Your task to perform on an android device: Open CNN.com Image 0: 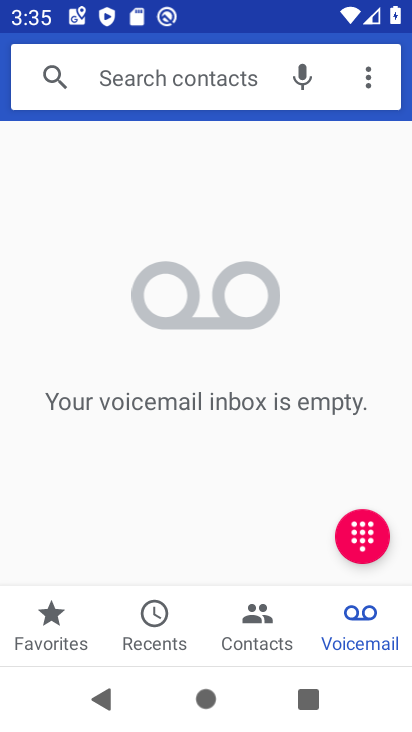
Step 0: press home button
Your task to perform on an android device: Open CNN.com Image 1: 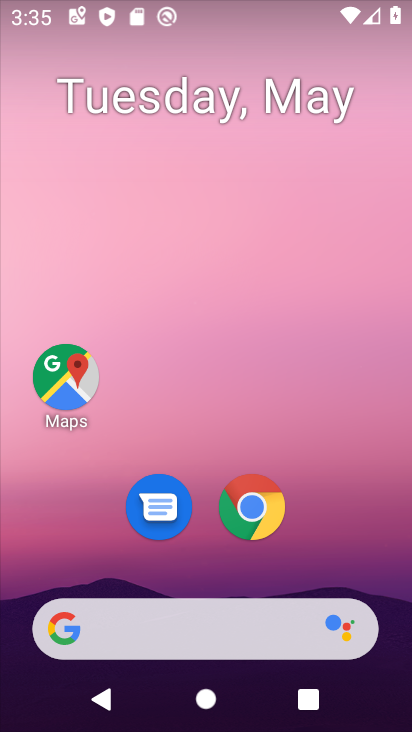
Step 1: click (257, 499)
Your task to perform on an android device: Open CNN.com Image 2: 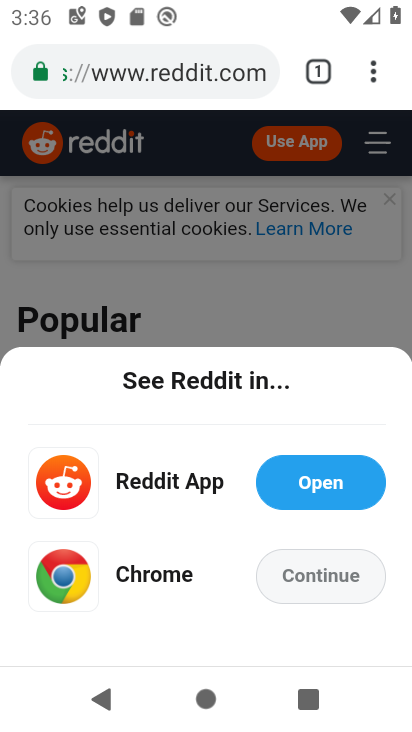
Step 2: click (180, 79)
Your task to perform on an android device: Open CNN.com Image 3: 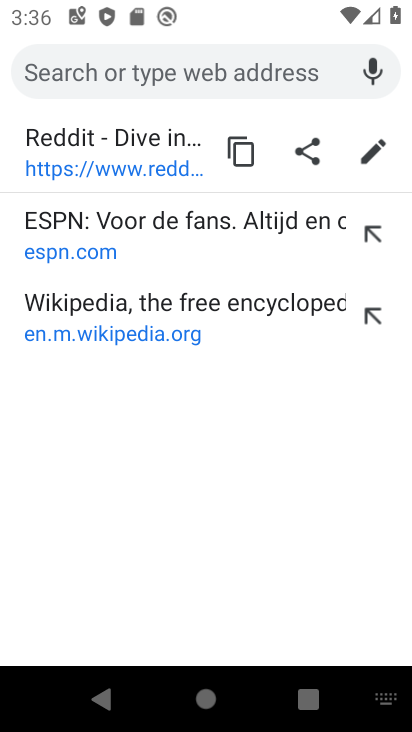
Step 3: type "CNN.com"
Your task to perform on an android device: Open CNN.com Image 4: 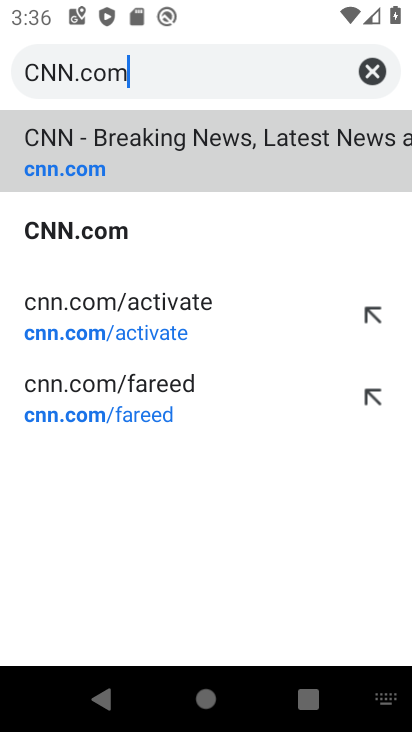
Step 4: click (102, 134)
Your task to perform on an android device: Open CNN.com Image 5: 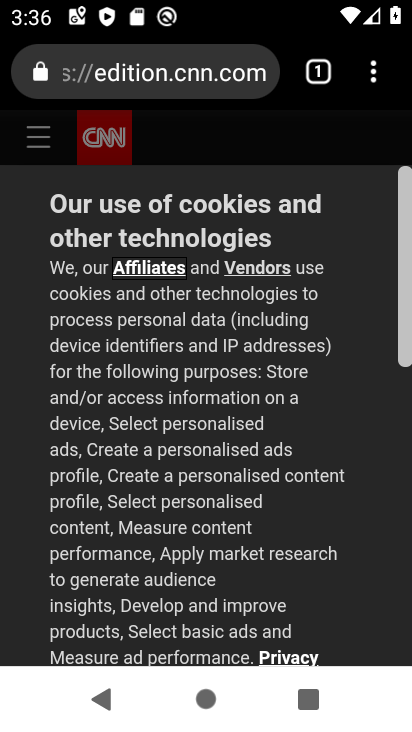
Step 5: task complete